Your task to perform on an android device: What's on my calendar tomorrow? Image 0: 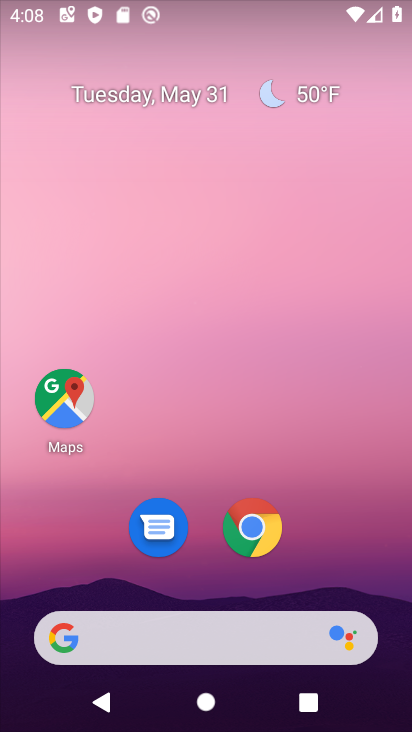
Step 0: drag from (363, 572) to (300, 68)
Your task to perform on an android device: What's on my calendar tomorrow? Image 1: 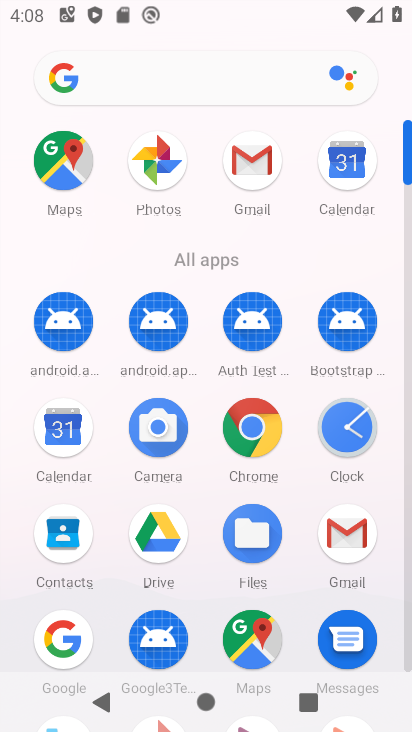
Step 1: click (331, 163)
Your task to perform on an android device: What's on my calendar tomorrow? Image 2: 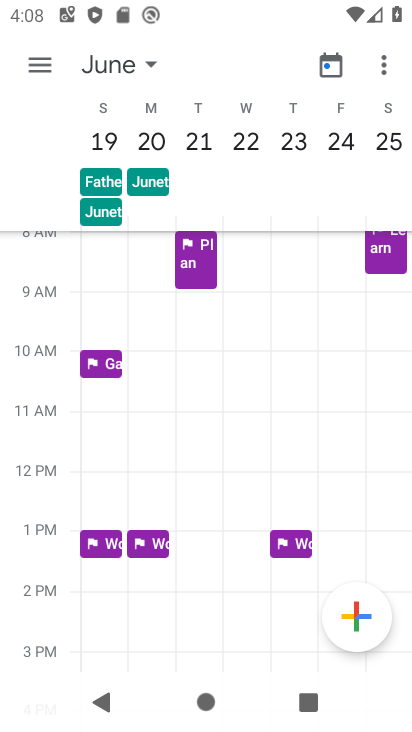
Step 2: click (103, 67)
Your task to perform on an android device: What's on my calendar tomorrow? Image 3: 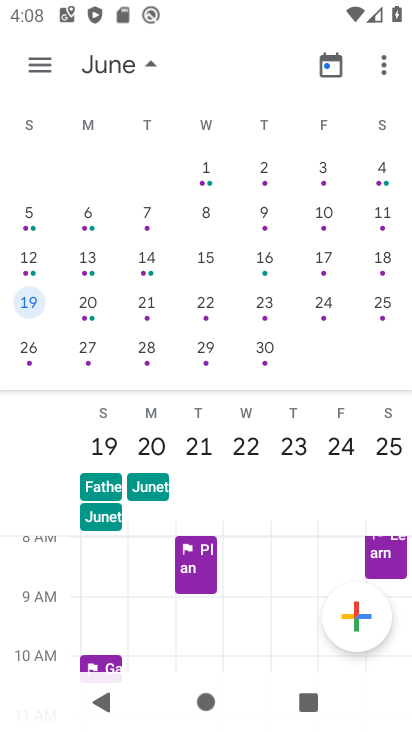
Step 3: click (24, 64)
Your task to perform on an android device: What's on my calendar tomorrow? Image 4: 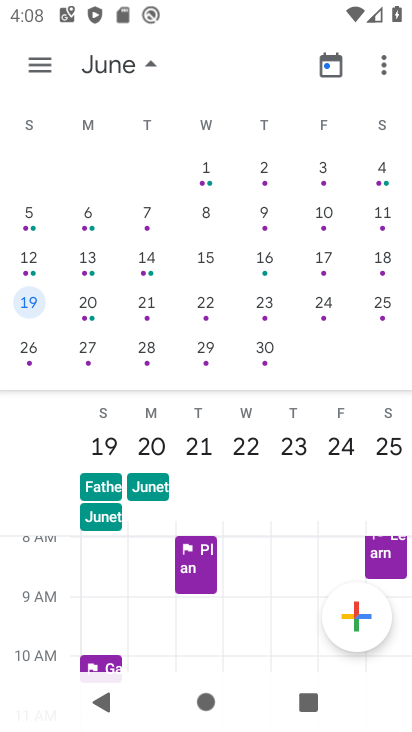
Step 4: click (32, 66)
Your task to perform on an android device: What's on my calendar tomorrow? Image 5: 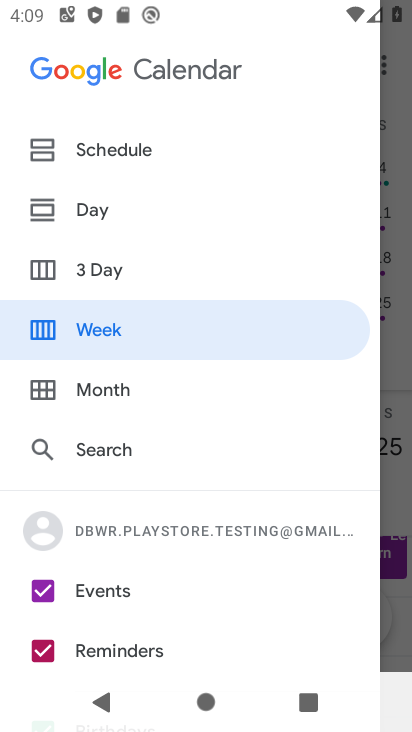
Step 5: click (94, 227)
Your task to perform on an android device: What's on my calendar tomorrow? Image 6: 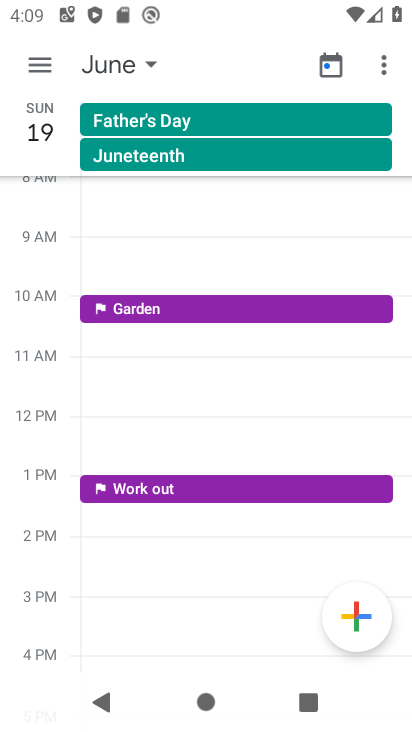
Step 6: click (110, 65)
Your task to perform on an android device: What's on my calendar tomorrow? Image 7: 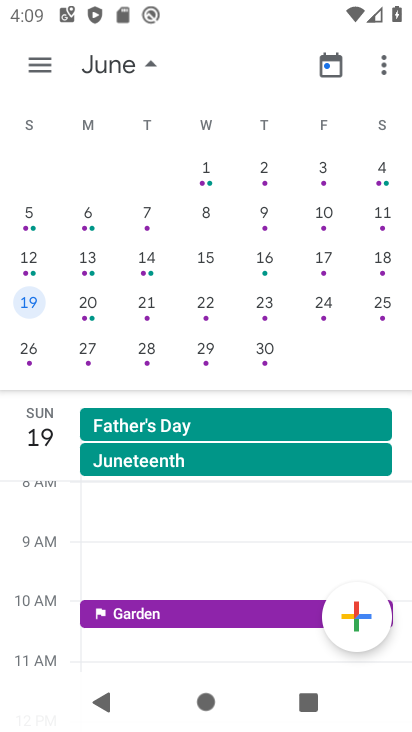
Step 7: click (212, 166)
Your task to perform on an android device: What's on my calendar tomorrow? Image 8: 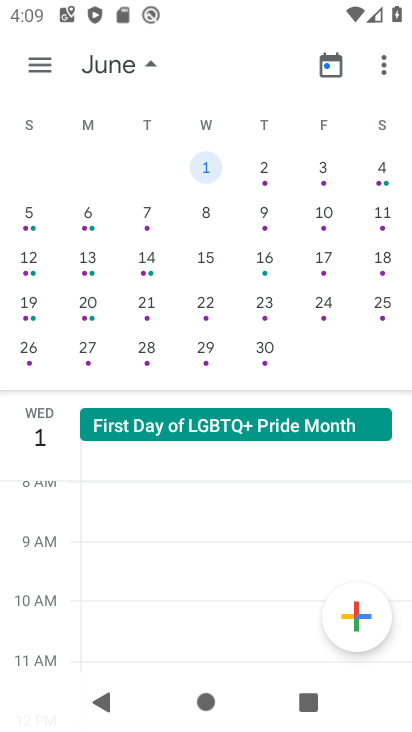
Step 8: click (127, 70)
Your task to perform on an android device: What's on my calendar tomorrow? Image 9: 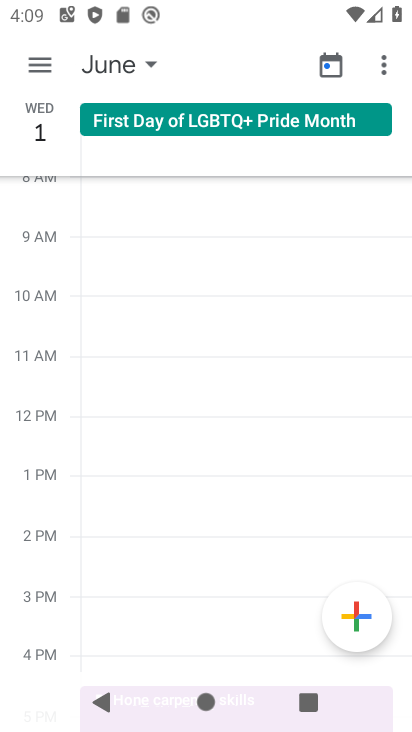
Step 9: task complete